Your task to perform on an android device: see tabs open on other devices in the chrome app Image 0: 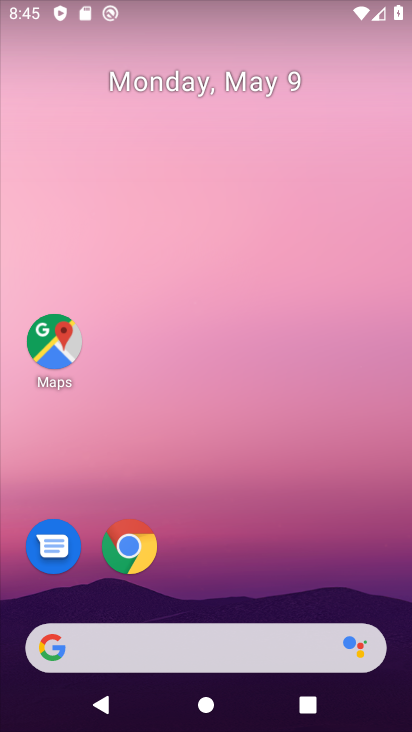
Step 0: click (146, 537)
Your task to perform on an android device: see tabs open on other devices in the chrome app Image 1: 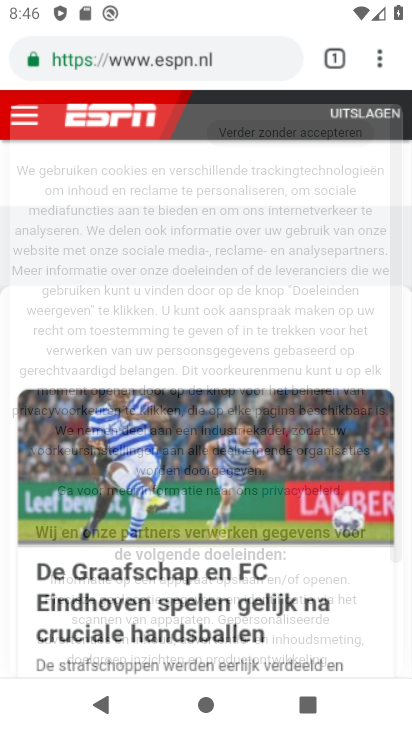
Step 1: click (388, 55)
Your task to perform on an android device: see tabs open on other devices in the chrome app Image 2: 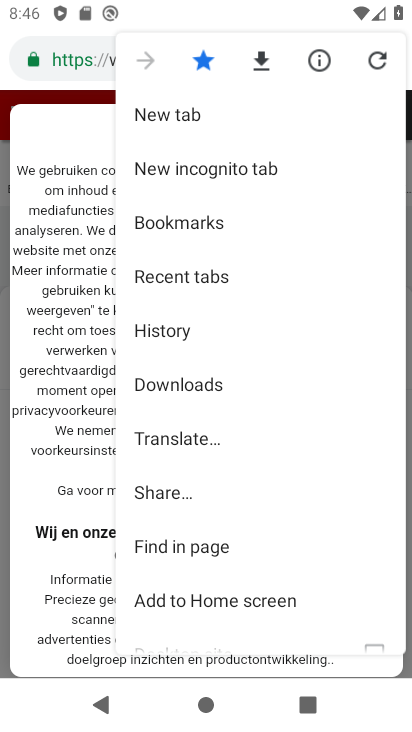
Step 2: click (213, 271)
Your task to perform on an android device: see tabs open on other devices in the chrome app Image 3: 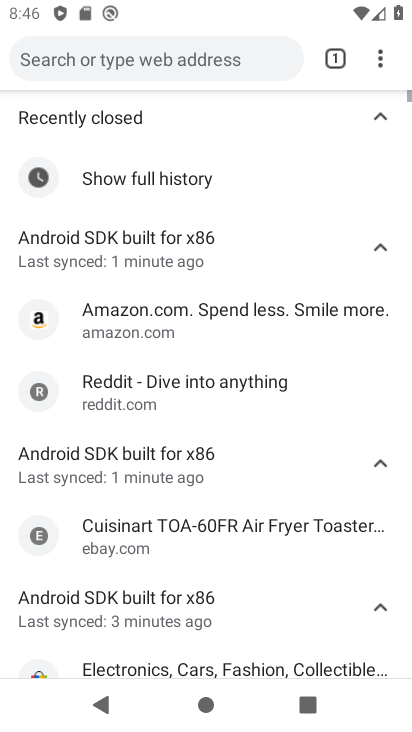
Step 3: task complete